Your task to perform on an android device: install app "ColorNote Notepad Notes" Image 0: 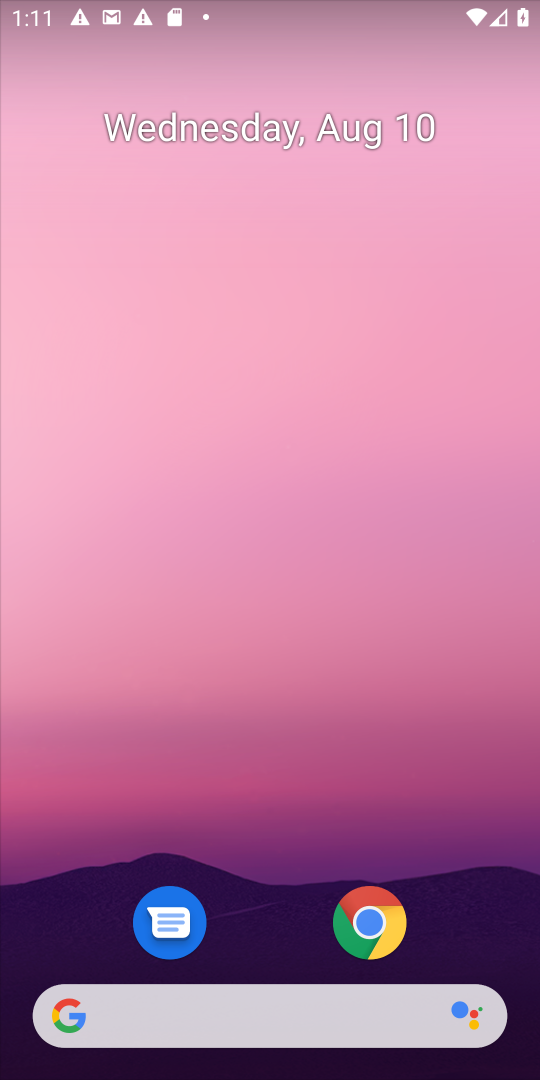
Step 0: click (174, 339)
Your task to perform on an android device: install app "ColorNote Notepad Notes" Image 1: 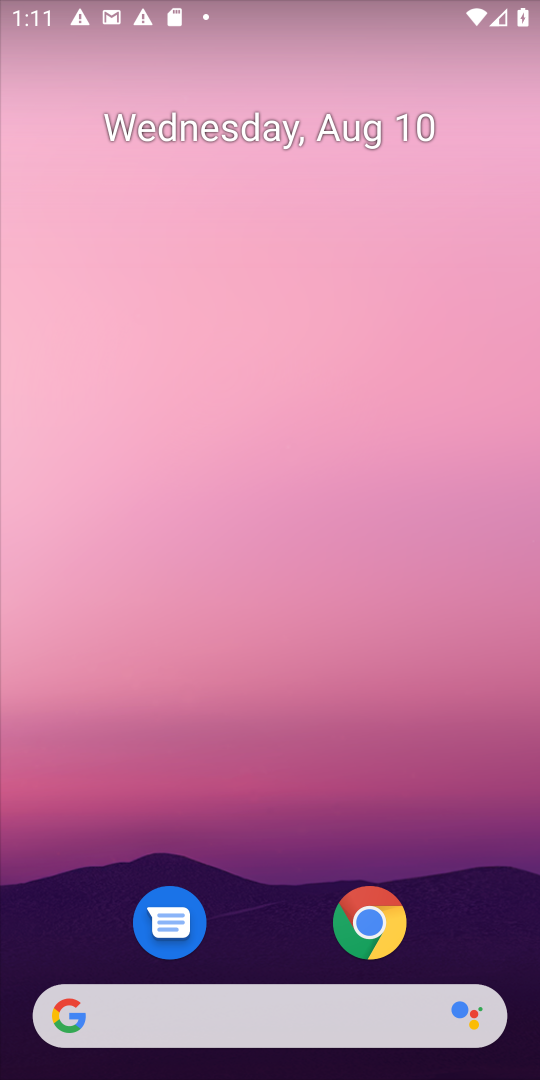
Step 1: drag from (277, 765) to (267, 48)
Your task to perform on an android device: install app "ColorNote Notepad Notes" Image 2: 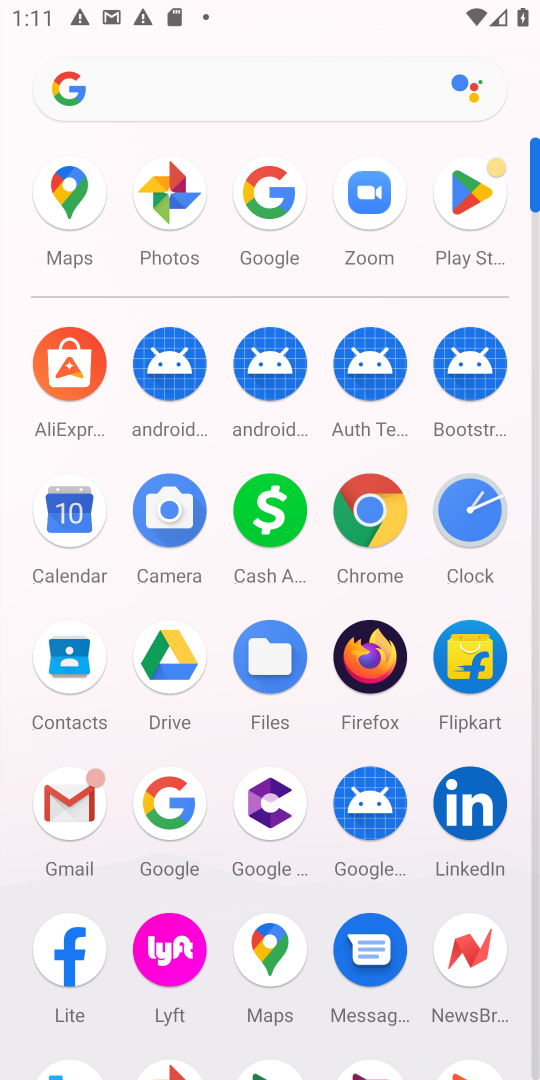
Step 2: click (470, 198)
Your task to perform on an android device: install app "ColorNote Notepad Notes" Image 3: 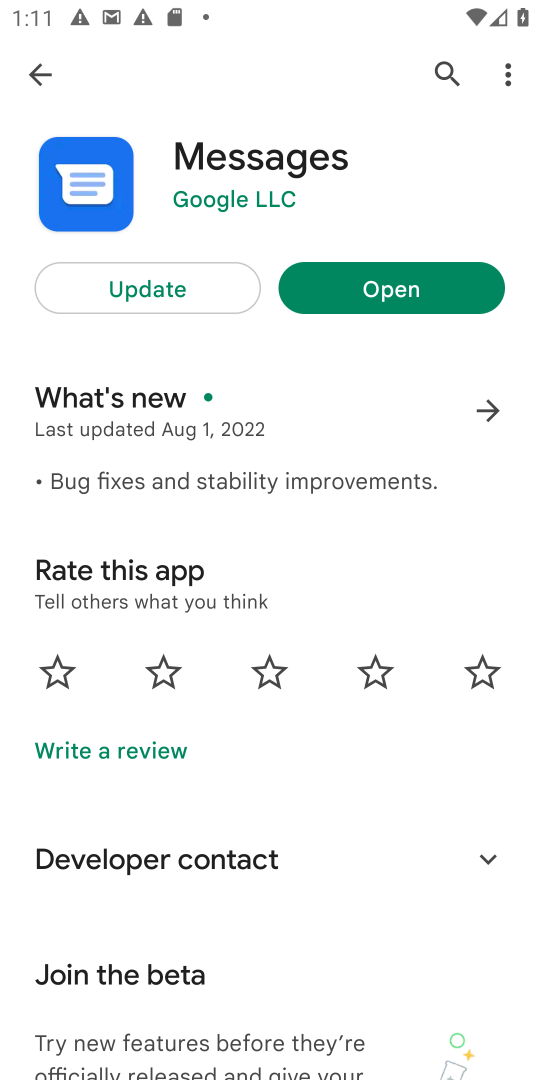
Step 3: click (35, 76)
Your task to perform on an android device: install app "ColorNote Notepad Notes" Image 4: 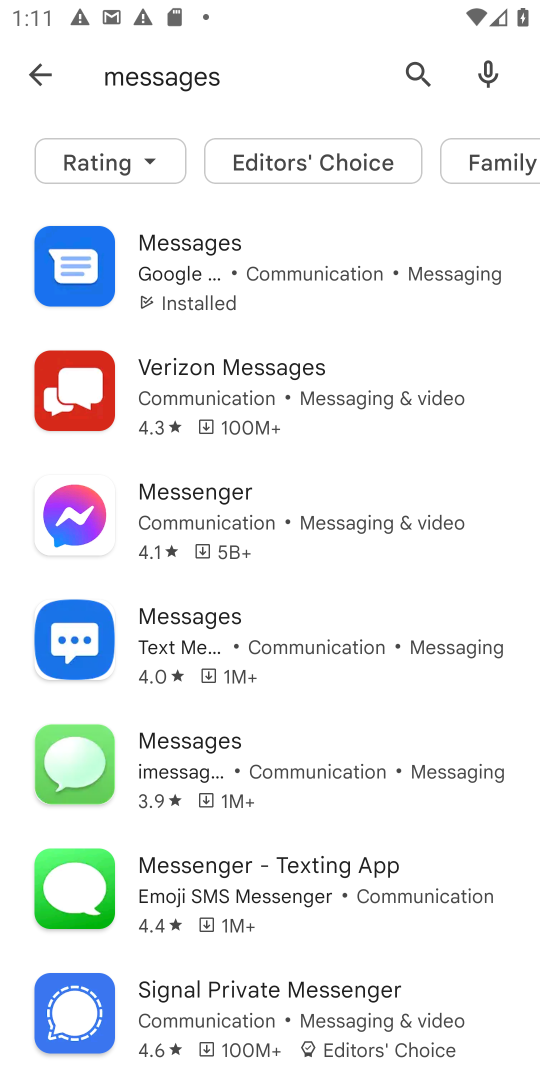
Step 4: click (39, 76)
Your task to perform on an android device: install app "ColorNote Notepad Notes" Image 5: 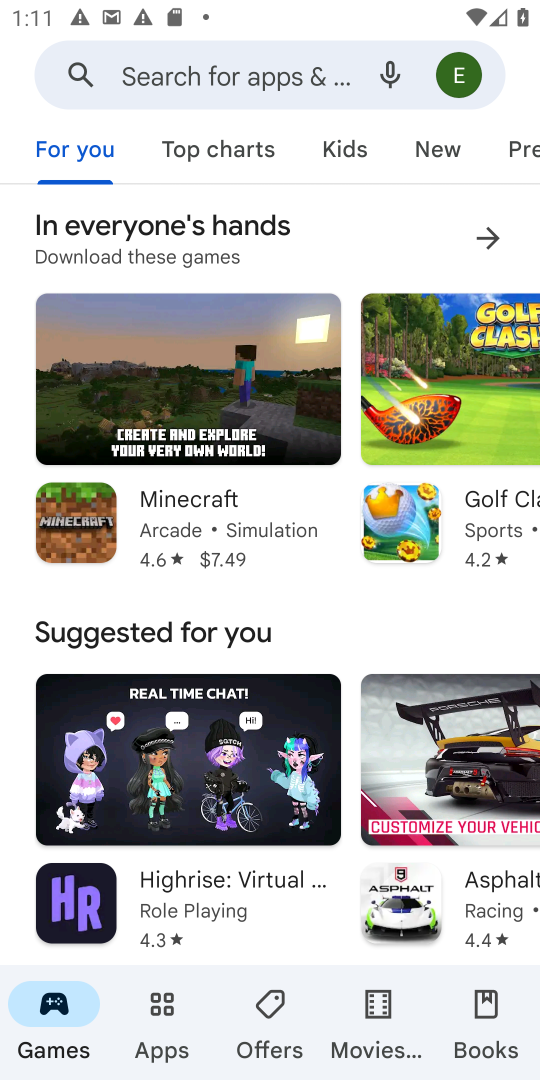
Step 5: click (157, 77)
Your task to perform on an android device: install app "ColorNote Notepad Notes" Image 6: 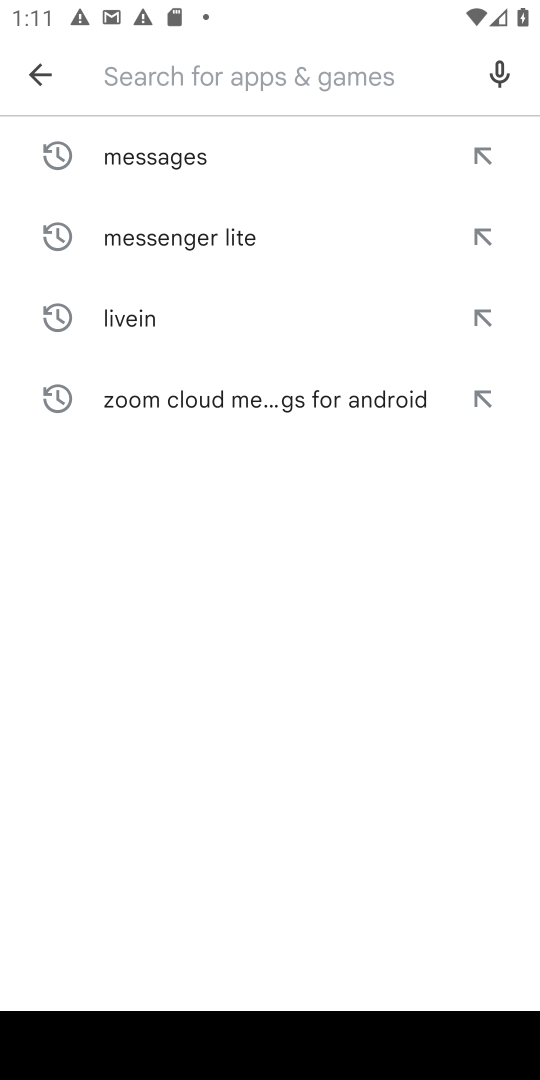
Step 6: type "ColorNote Notepad Notes"
Your task to perform on an android device: install app "ColorNote Notepad Notes" Image 7: 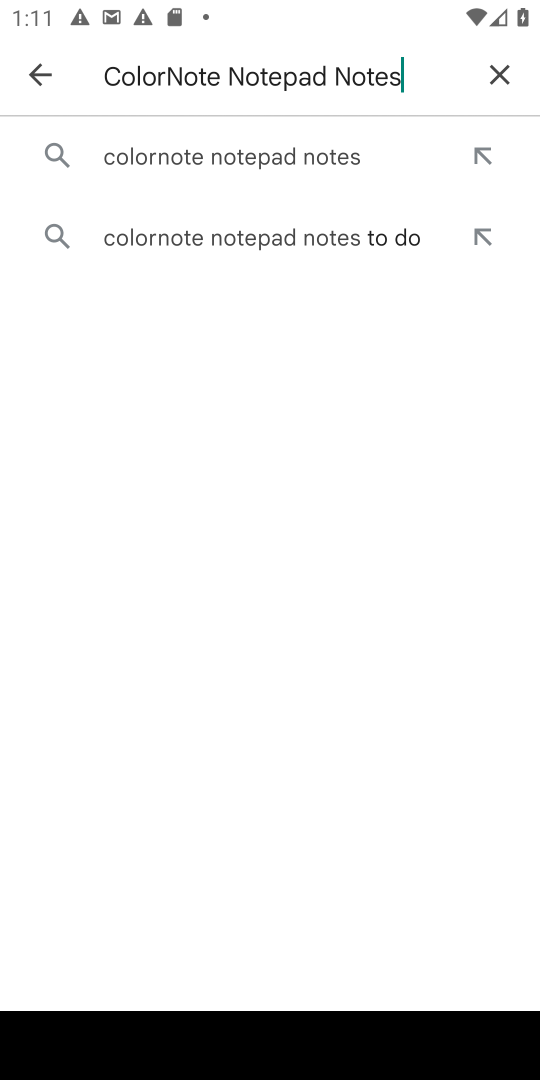
Step 7: click (336, 163)
Your task to perform on an android device: install app "ColorNote Notepad Notes" Image 8: 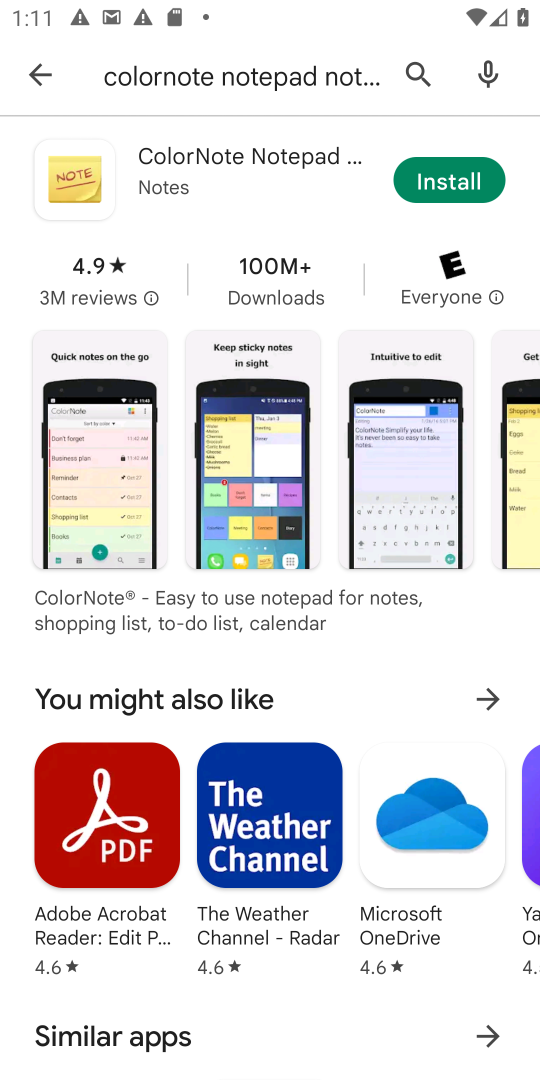
Step 8: click (447, 177)
Your task to perform on an android device: install app "ColorNote Notepad Notes" Image 9: 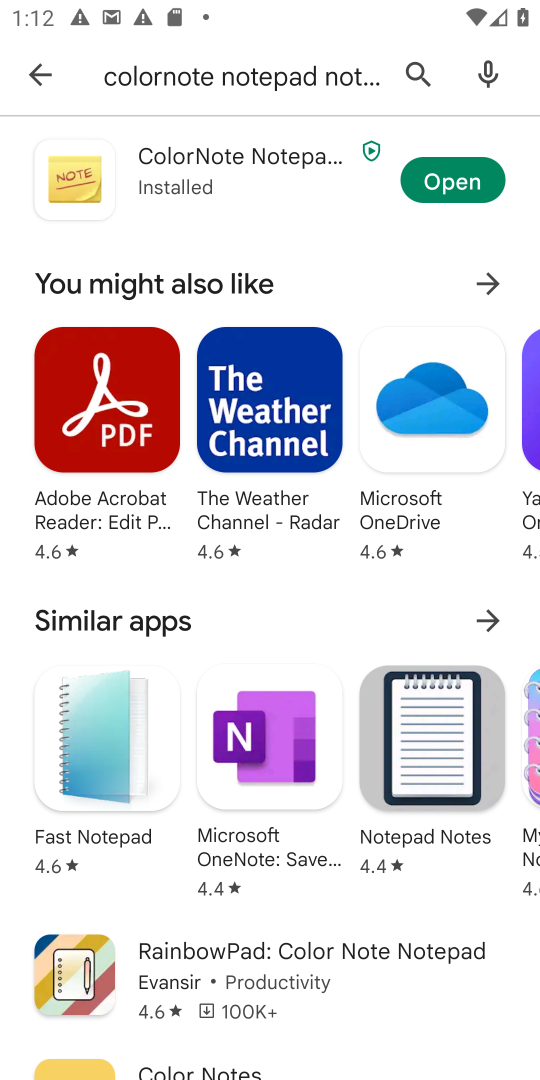
Step 9: click (447, 177)
Your task to perform on an android device: install app "ColorNote Notepad Notes" Image 10: 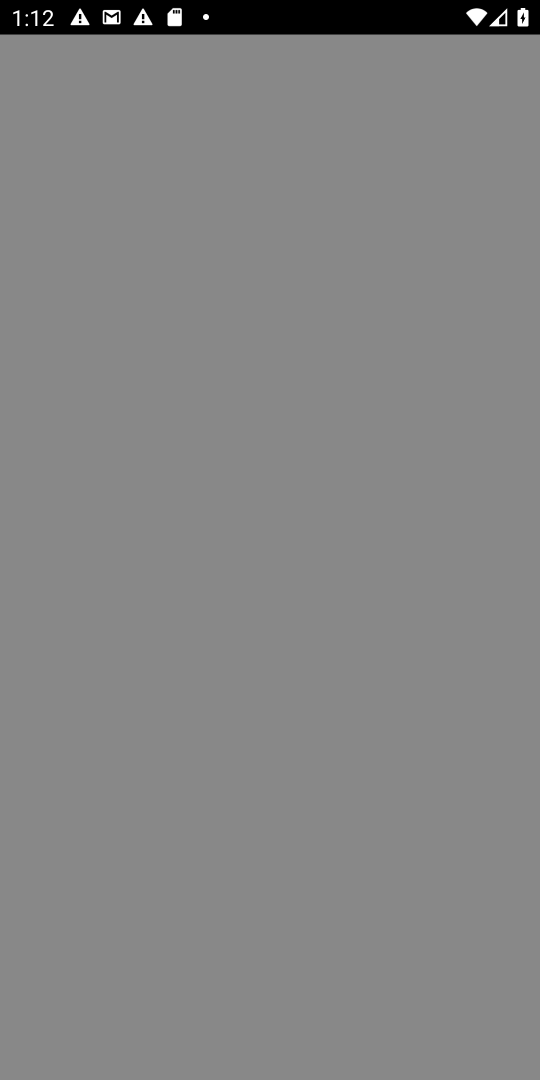
Step 10: task complete